Your task to perform on an android device: Search for Italian restaurants on Maps Image 0: 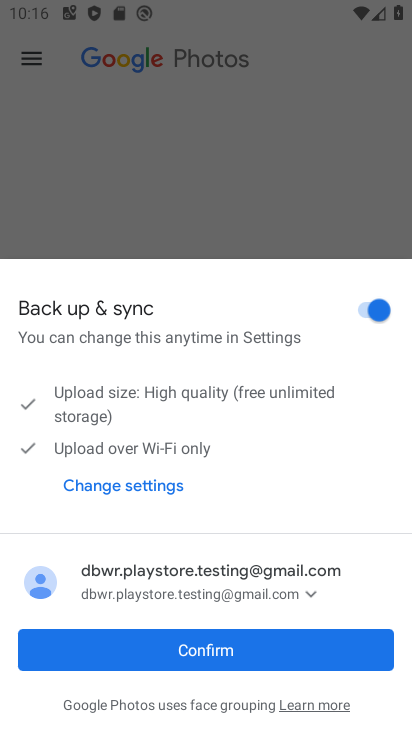
Step 0: press back button
Your task to perform on an android device: Search for Italian restaurants on Maps Image 1: 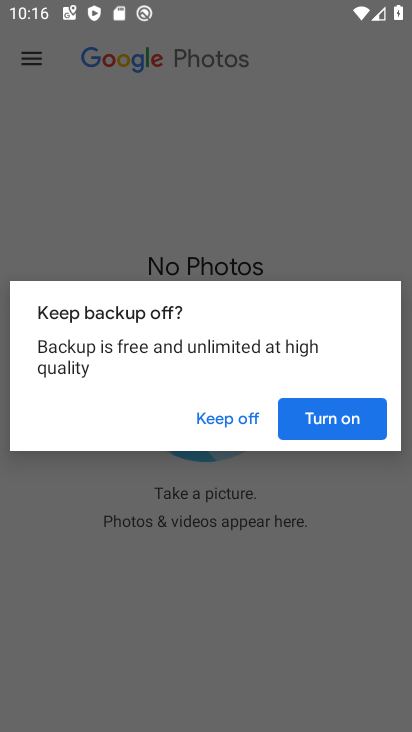
Step 1: press home button
Your task to perform on an android device: Search for Italian restaurants on Maps Image 2: 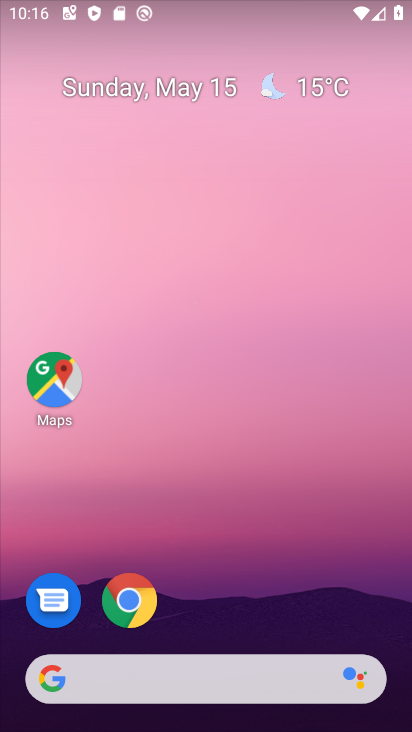
Step 2: drag from (323, 566) to (347, 127)
Your task to perform on an android device: Search for Italian restaurants on Maps Image 3: 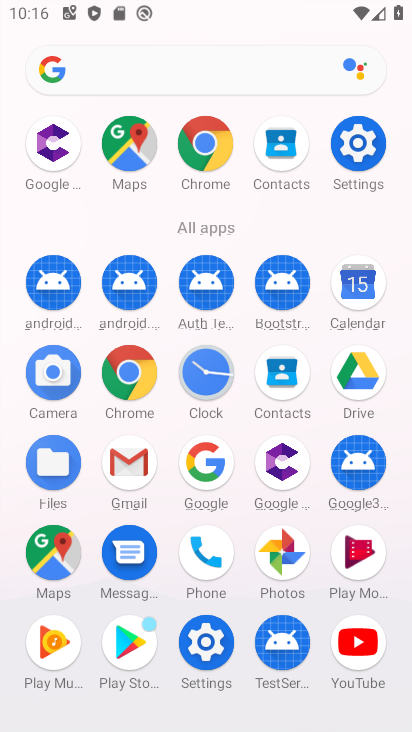
Step 3: click (43, 563)
Your task to perform on an android device: Search for Italian restaurants on Maps Image 4: 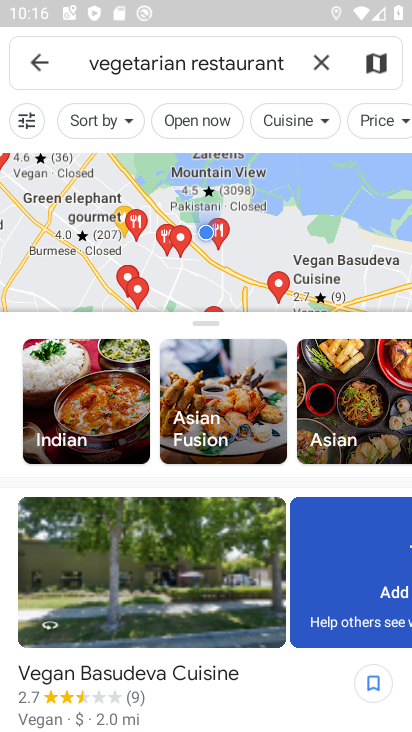
Step 4: click (214, 61)
Your task to perform on an android device: Search for Italian restaurants on Maps Image 5: 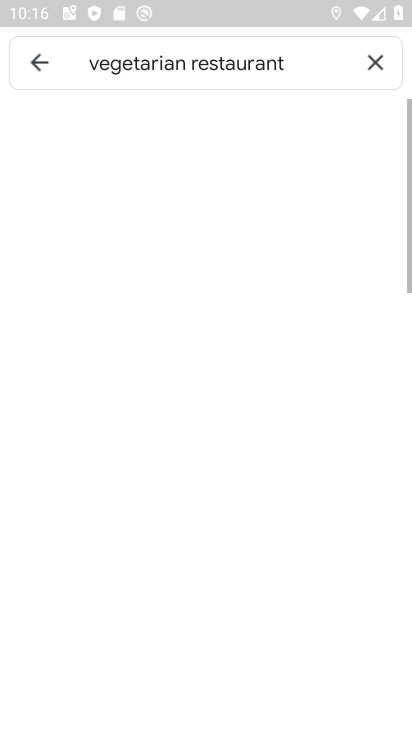
Step 5: click (320, 63)
Your task to perform on an android device: Search for Italian restaurants on Maps Image 6: 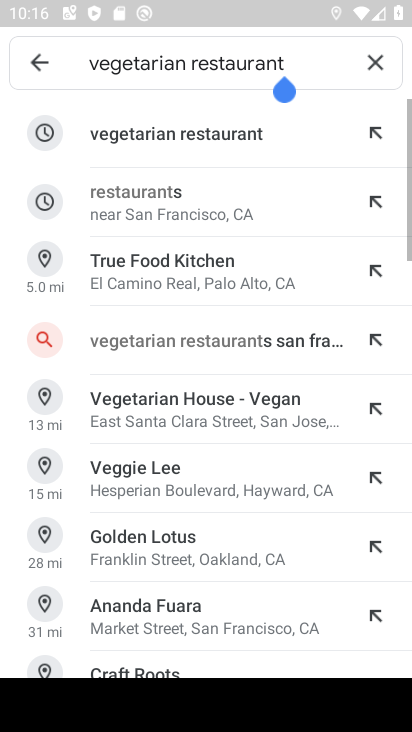
Step 6: click (378, 64)
Your task to perform on an android device: Search for Italian restaurants on Maps Image 7: 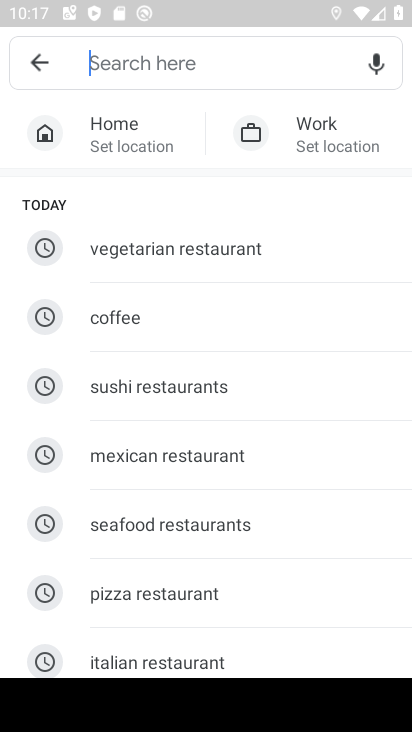
Step 7: type "italian restaurants"
Your task to perform on an android device: Search for Italian restaurants on Maps Image 8: 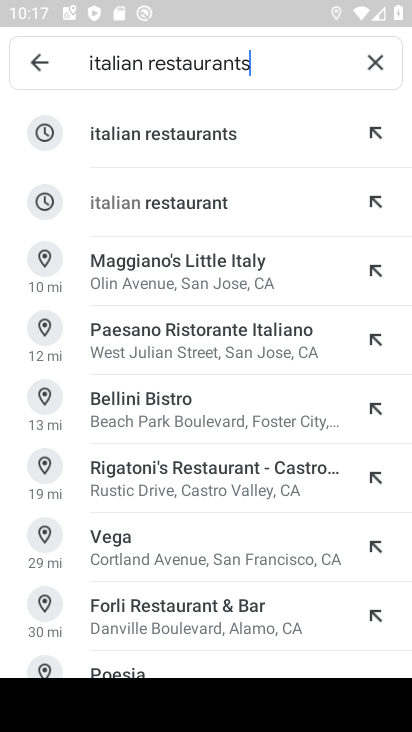
Step 8: click (209, 152)
Your task to perform on an android device: Search for Italian restaurants on Maps Image 9: 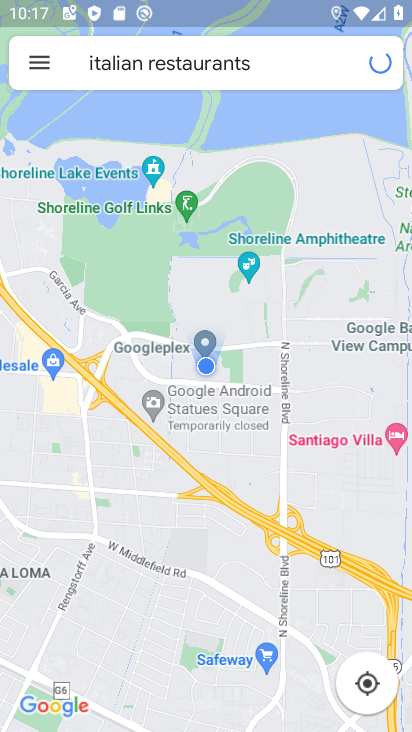
Step 9: task complete